Your task to perform on an android device: Open Android settings Image 0: 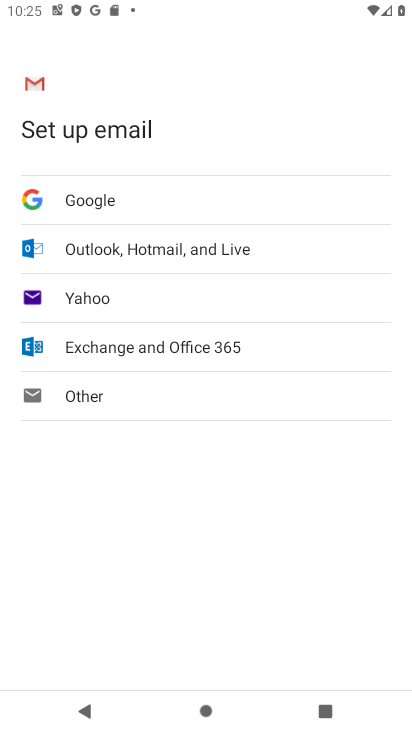
Step 0: press home button
Your task to perform on an android device: Open Android settings Image 1: 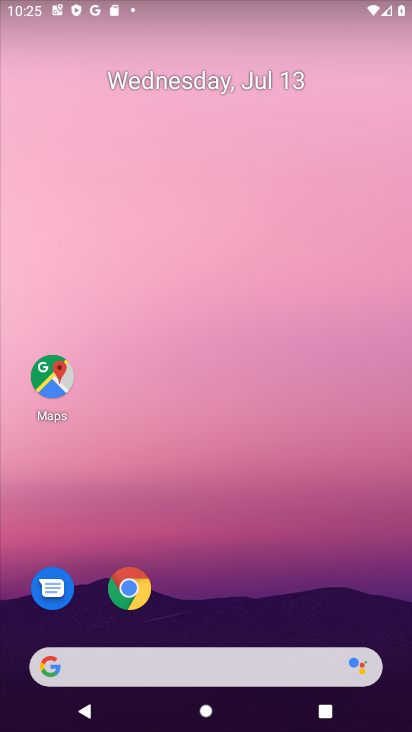
Step 1: drag from (239, 609) to (234, 109)
Your task to perform on an android device: Open Android settings Image 2: 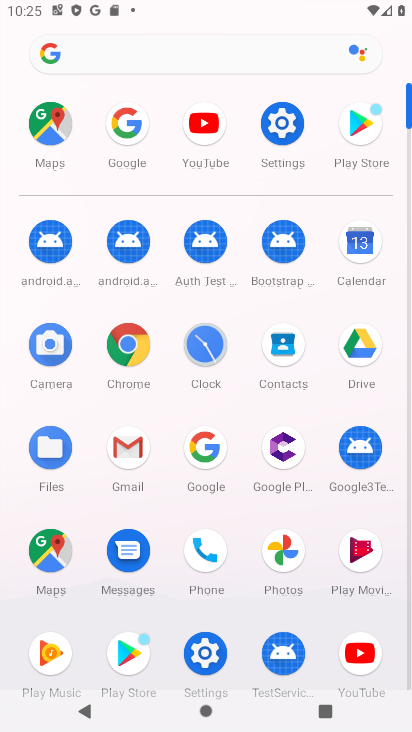
Step 2: click (287, 129)
Your task to perform on an android device: Open Android settings Image 3: 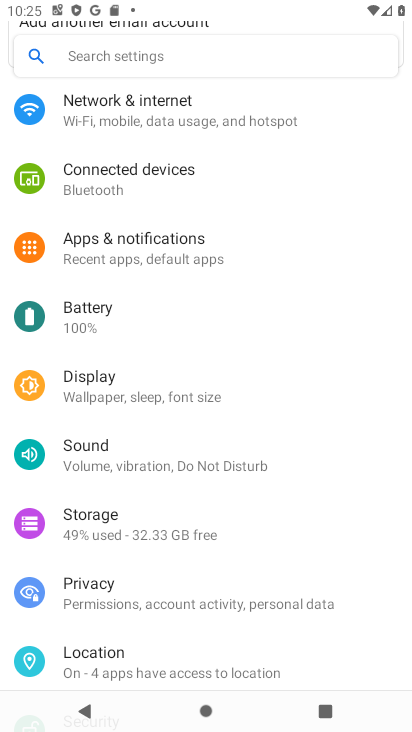
Step 3: task complete